Your task to perform on an android device: Open the phone app and click the voicemail tab. Image 0: 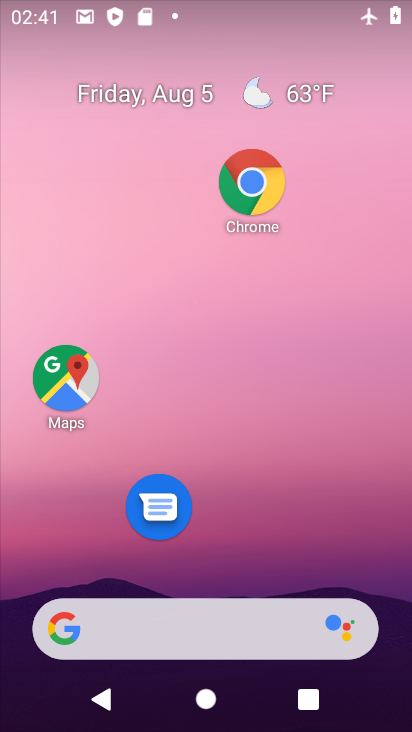
Step 0: drag from (221, 534) to (210, 16)
Your task to perform on an android device: Open the phone app and click the voicemail tab. Image 1: 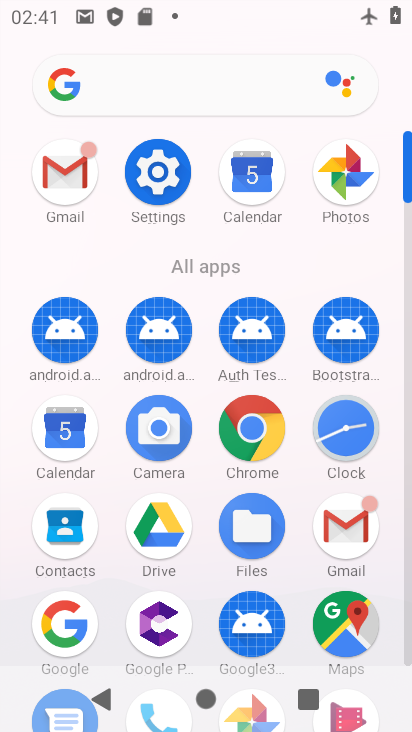
Step 1: drag from (199, 574) to (198, 386)
Your task to perform on an android device: Open the phone app and click the voicemail tab. Image 2: 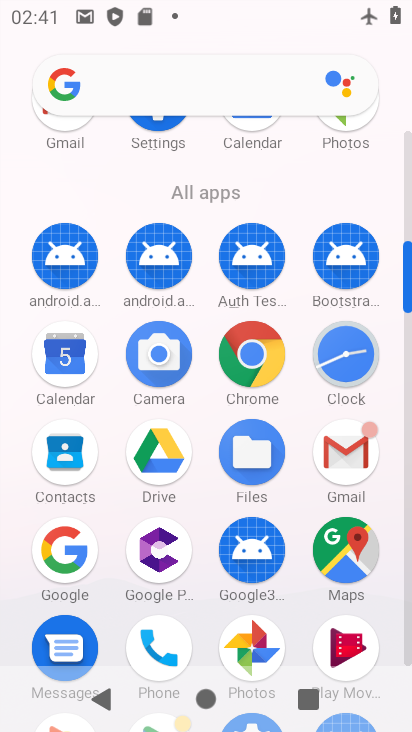
Step 2: click (161, 644)
Your task to perform on an android device: Open the phone app and click the voicemail tab. Image 3: 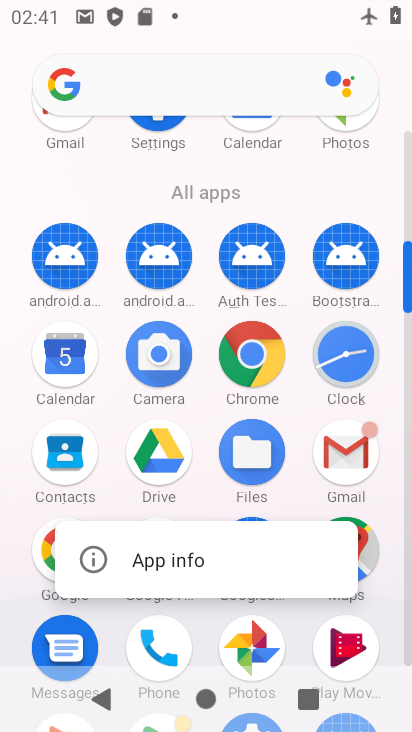
Step 3: click (170, 641)
Your task to perform on an android device: Open the phone app and click the voicemail tab. Image 4: 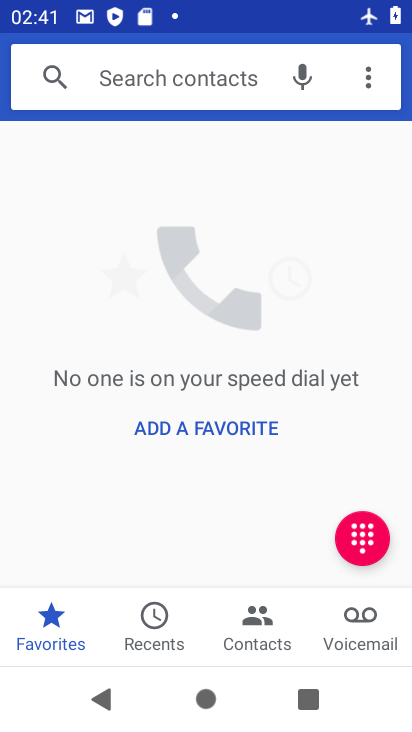
Step 4: click (356, 628)
Your task to perform on an android device: Open the phone app and click the voicemail tab. Image 5: 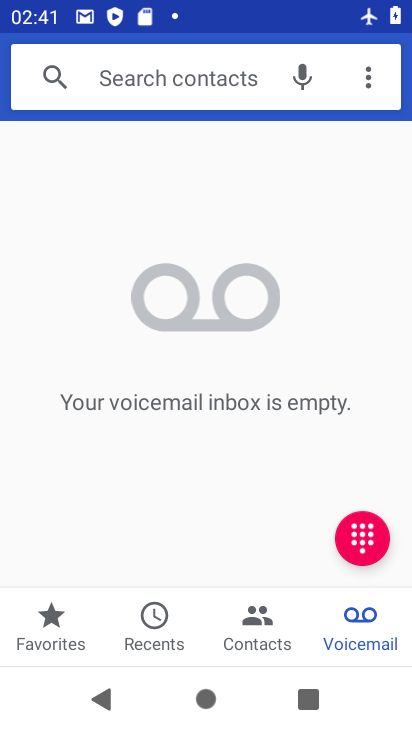
Step 5: task complete